Your task to perform on an android device: Go to CNN.com Image 0: 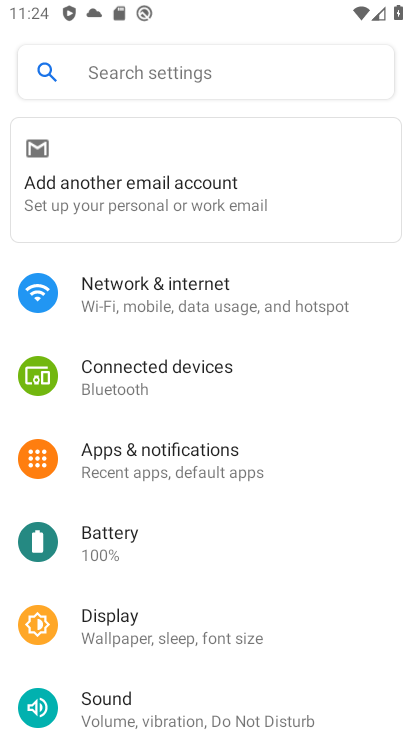
Step 0: press home button
Your task to perform on an android device: Go to CNN.com Image 1: 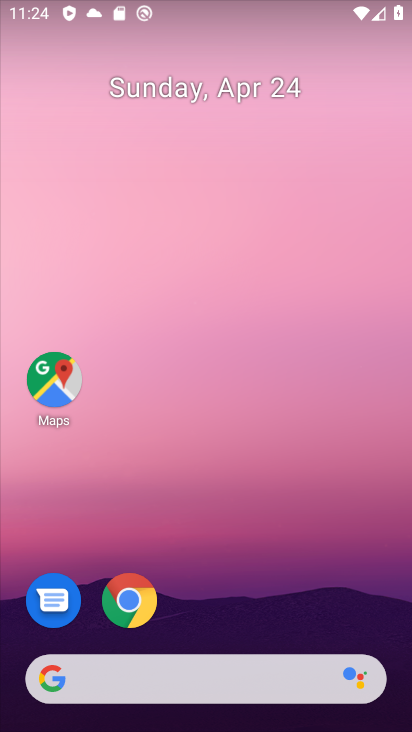
Step 1: click (178, 670)
Your task to perform on an android device: Go to CNN.com Image 2: 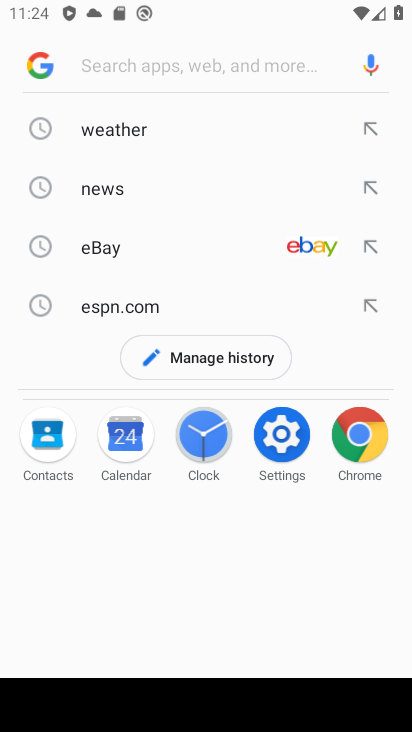
Step 2: type "CNN.com"
Your task to perform on an android device: Go to CNN.com Image 3: 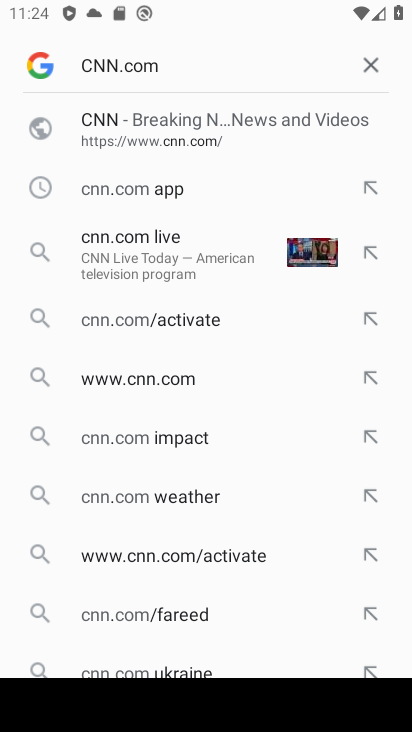
Step 3: click (138, 128)
Your task to perform on an android device: Go to CNN.com Image 4: 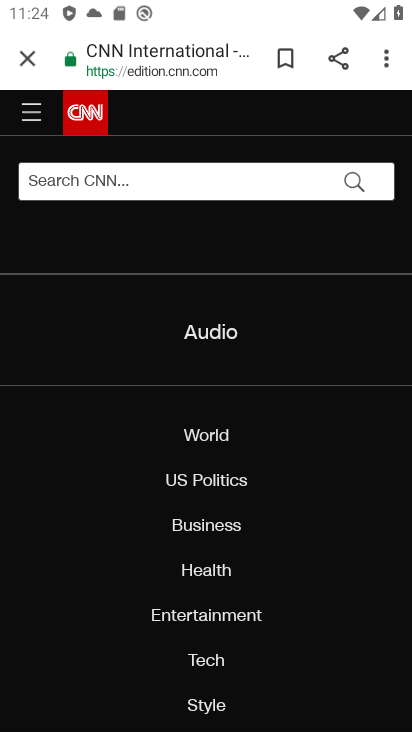
Step 4: task complete